Your task to perform on an android device: Open sound settings Image 0: 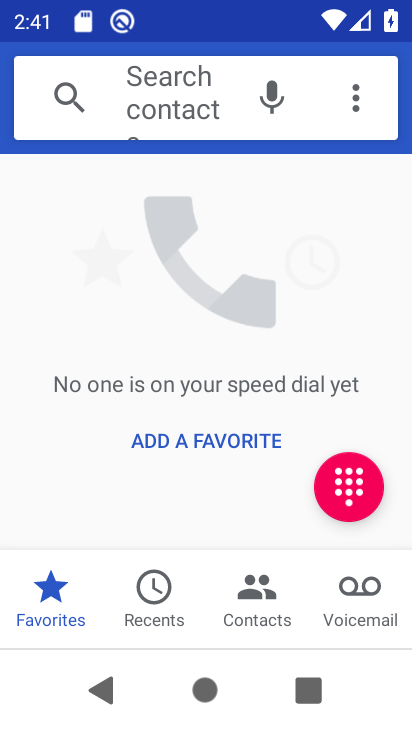
Step 0: press home button
Your task to perform on an android device: Open sound settings Image 1: 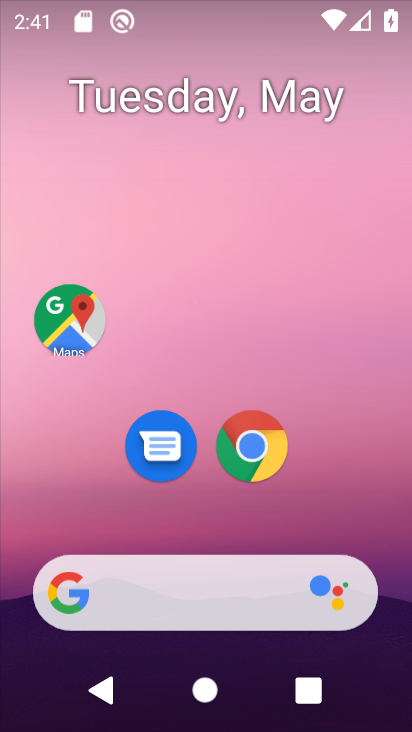
Step 1: drag from (360, 471) to (362, 183)
Your task to perform on an android device: Open sound settings Image 2: 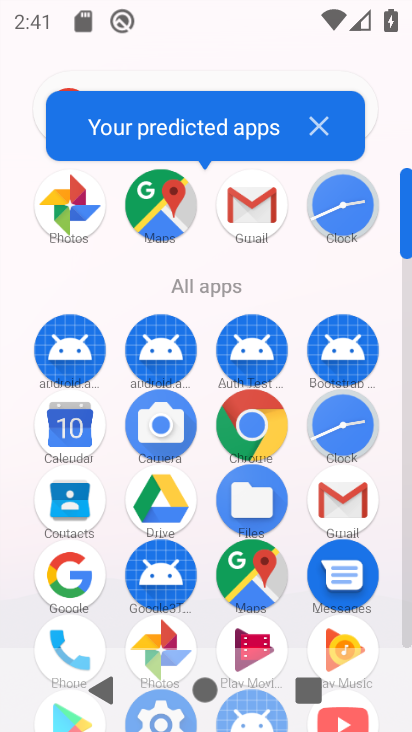
Step 2: click (349, 656)
Your task to perform on an android device: Open sound settings Image 3: 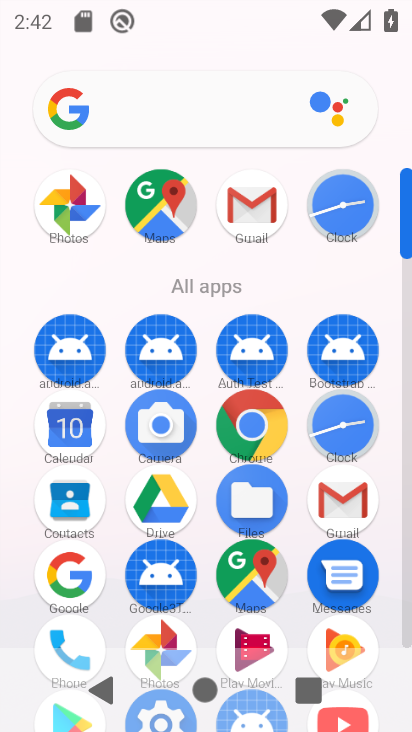
Step 3: drag from (378, 527) to (394, 222)
Your task to perform on an android device: Open sound settings Image 4: 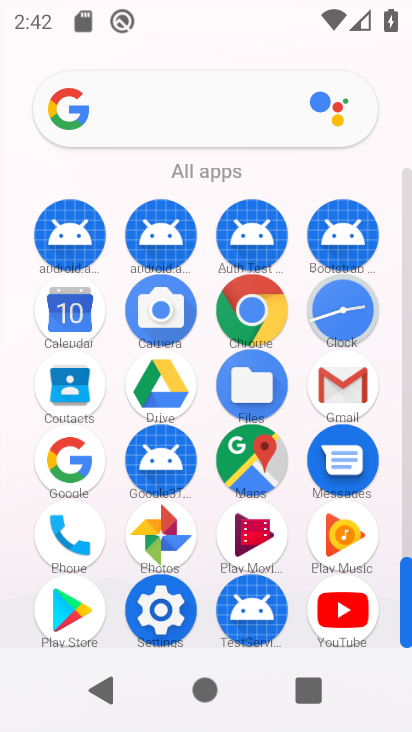
Step 4: click (158, 625)
Your task to perform on an android device: Open sound settings Image 5: 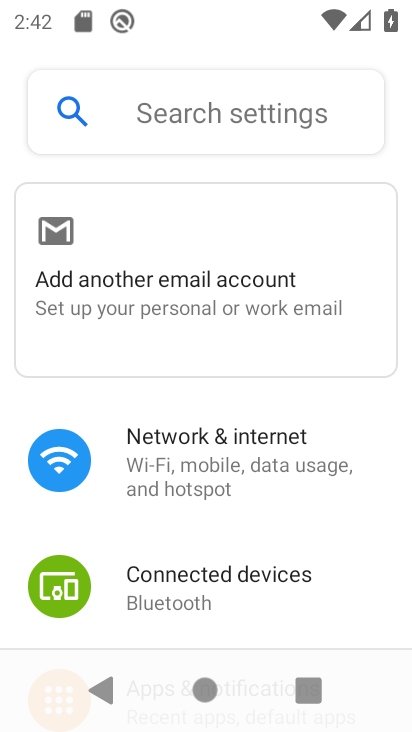
Step 5: drag from (248, 539) to (320, 195)
Your task to perform on an android device: Open sound settings Image 6: 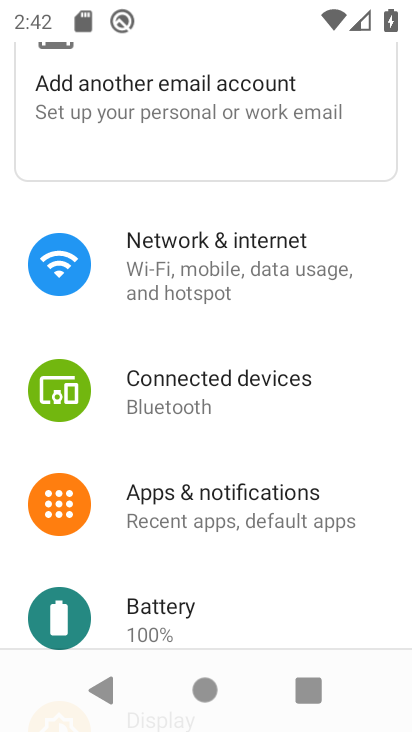
Step 6: drag from (274, 552) to (367, 239)
Your task to perform on an android device: Open sound settings Image 7: 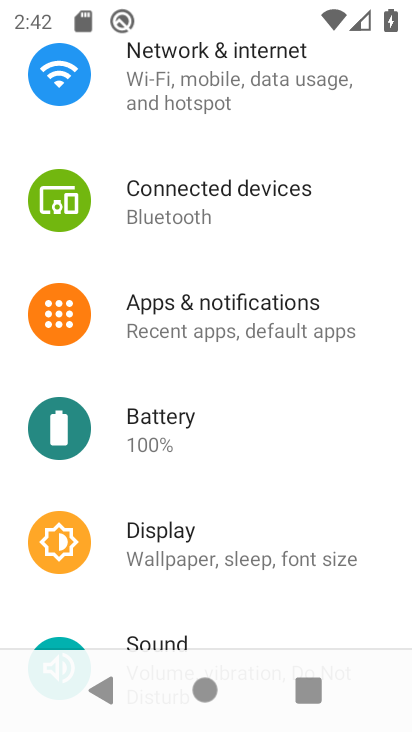
Step 7: drag from (203, 447) to (230, 195)
Your task to perform on an android device: Open sound settings Image 8: 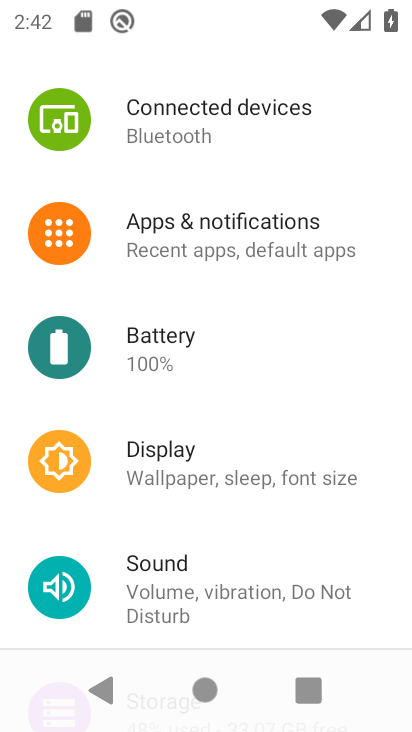
Step 8: click (162, 580)
Your task to perform on an android device: Open sound settings Image 9: 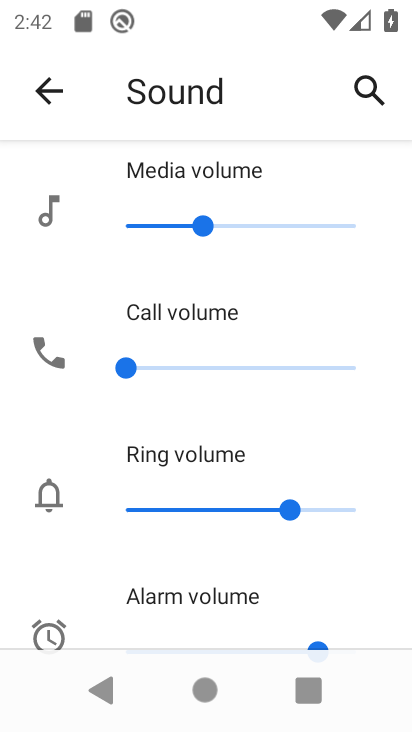
Step 9: task complete